Your task to perform on an android device: add a label to a message in the gmail app Image 0: 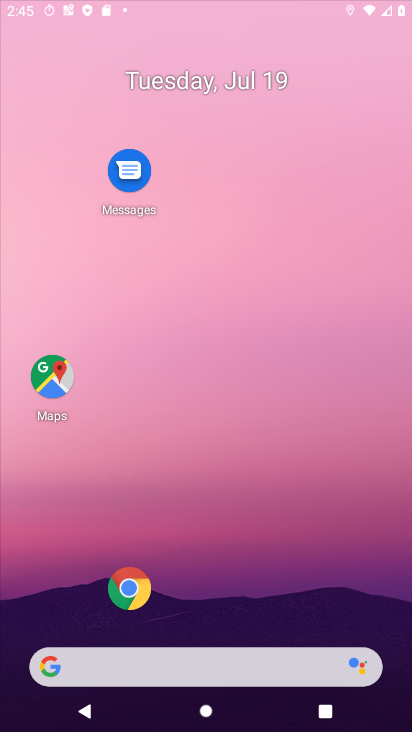
Step 0: click (43, 373)
Your task to perform on an android device: add a label to a message in the gmail app Image 1: 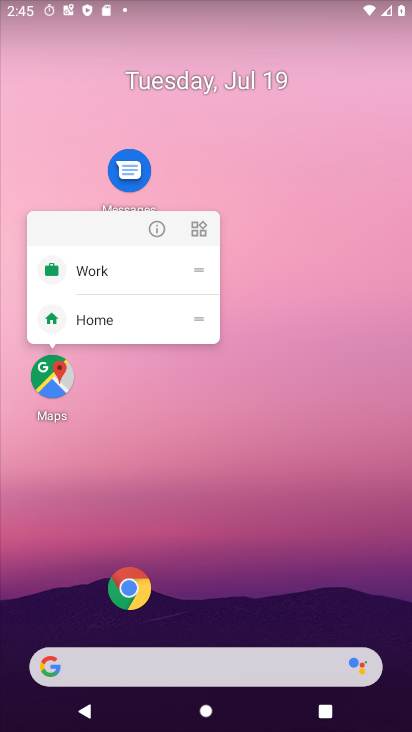
Step 1: click (54, 385)
Your task to perform on an android device: add a label to a message in the gmail app Image 2: 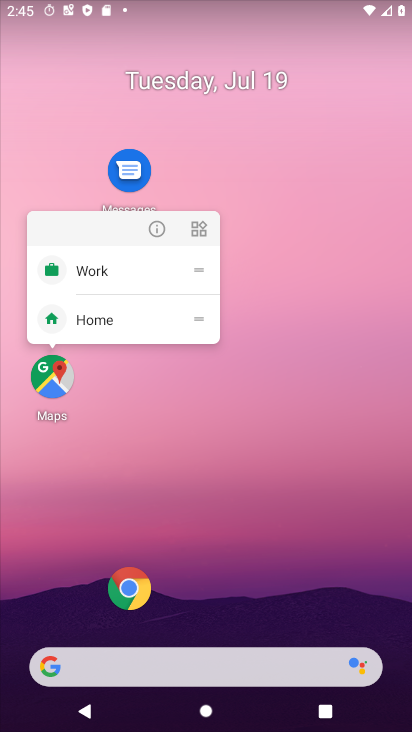
Step 2: click (51, 383)
Your task to perform on an android device: add a label to a message in the gmail app Image 3: 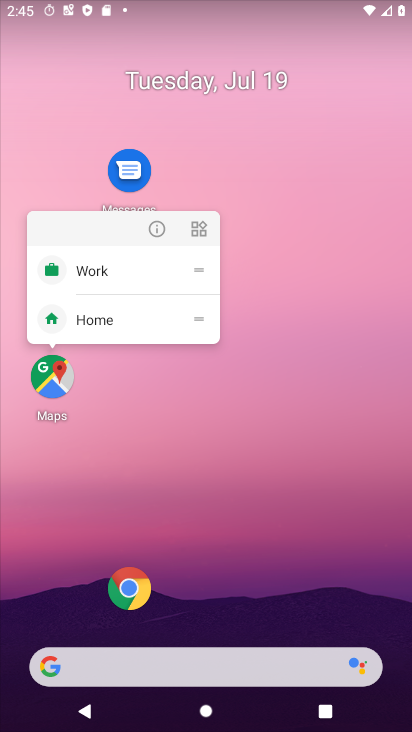
Step 3: click (56, 371)
Your task to perform on an android device: add a label to a message in the gmail app Image 4: 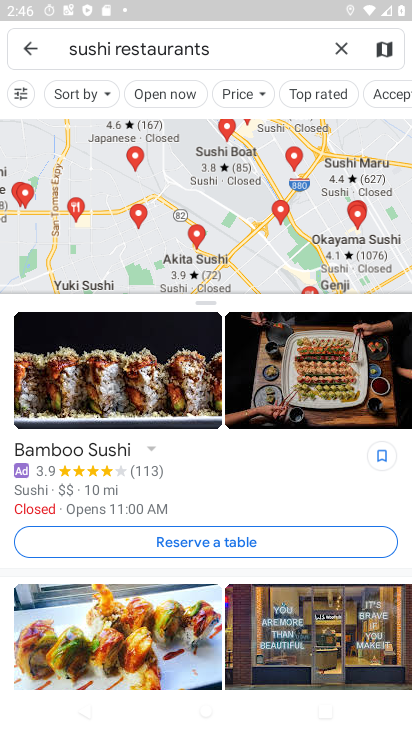
Step 4: click (339, 45)
Your task to perform on an android device: add a label to a message in the gmail app Image 5: 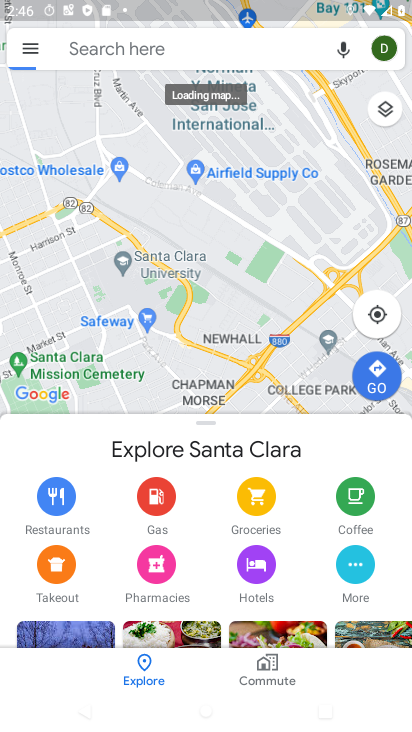
Step 5: press home button
Your task to perform on an android device: add a label to a message in the gmail app Image 6: 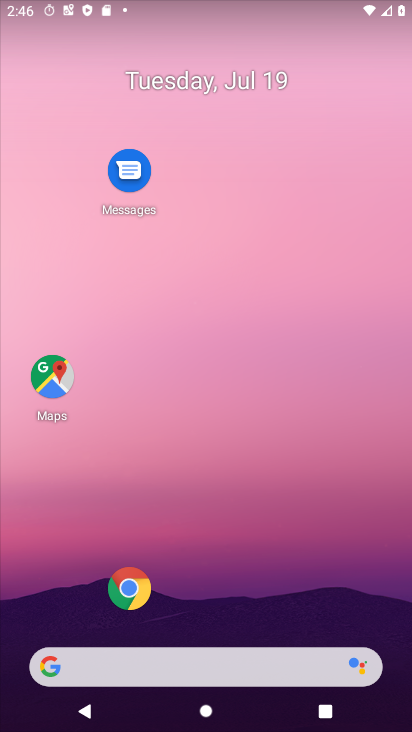
Step 6: drag from (13, 696) to (298, 92)
Your task to perform on an android device: add a label to a message in the gmail app Image 7: 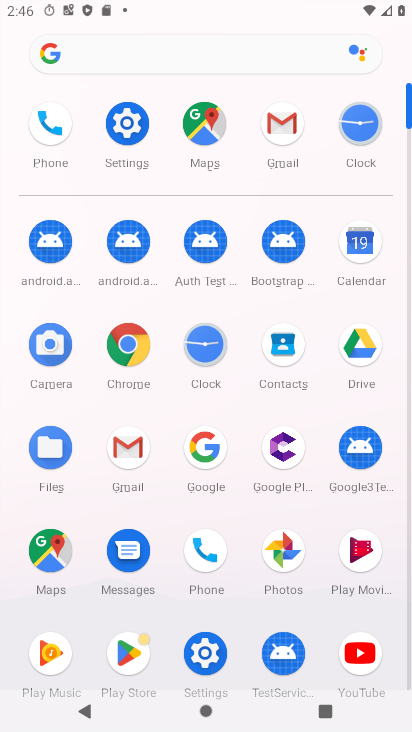
Step 7: click (119, 443)
Your task to perform on an android device: add a label to a message in the gmail app Image 8: 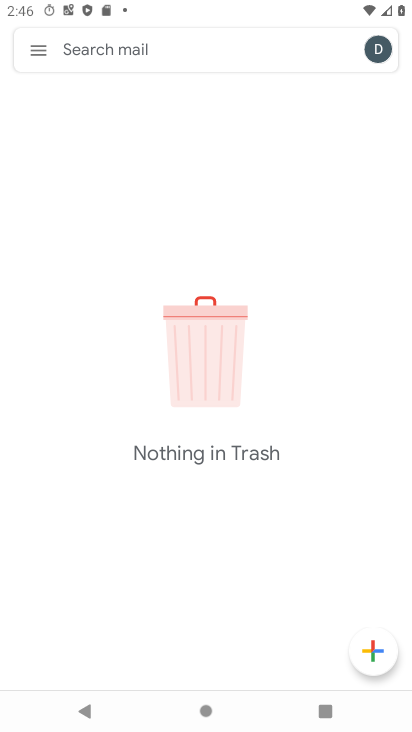
Step 8: click (37, 46)
Your task to perform on an android device: add a label to a message in the gmail app Image 9: 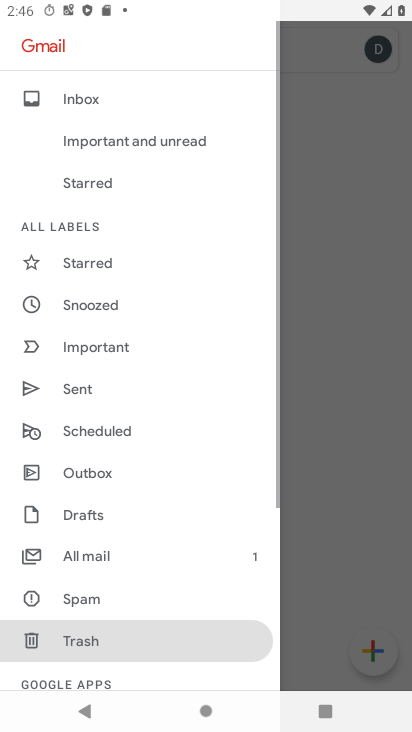
Step 9: click (95, 99)
Your task to perform on an android device: add a label to a message in the gmail app Image 10: 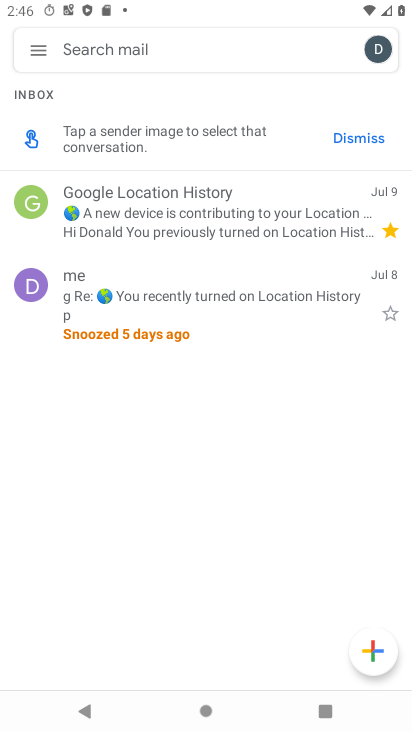
Step 10: task complete